Your task to perform on an android device: add a label to a message in the gmail app Image 0: 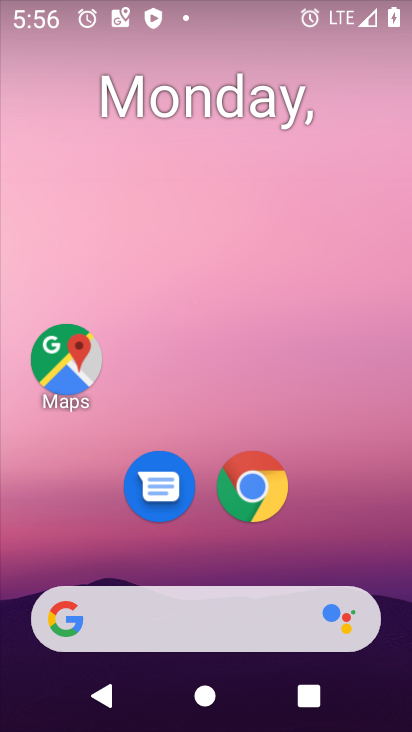
Step 0: click (278, 486)
Your task to perform on an android device: add a label to a message in the gmail app Image 1: 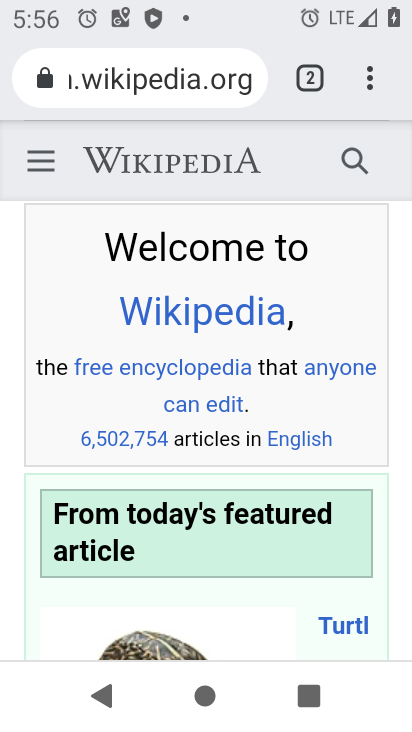
Step 1: click (307, 486)
Your task to perform on an android device: add a label to a message in the gmail app Image 2: 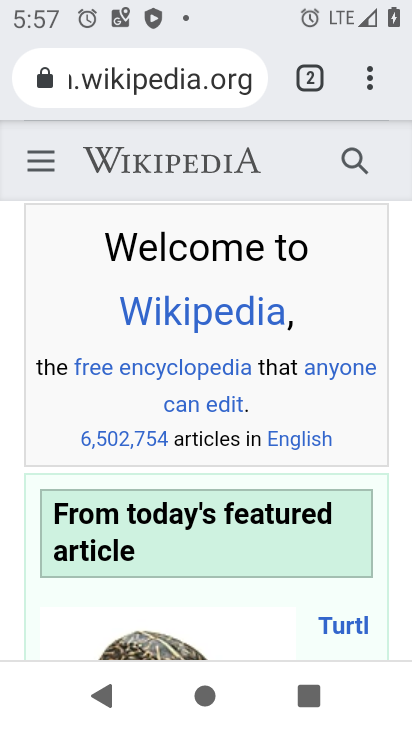
Step 2: press home button
Your task to perform on an android device: add a label to a message in the gmail app Image 3: 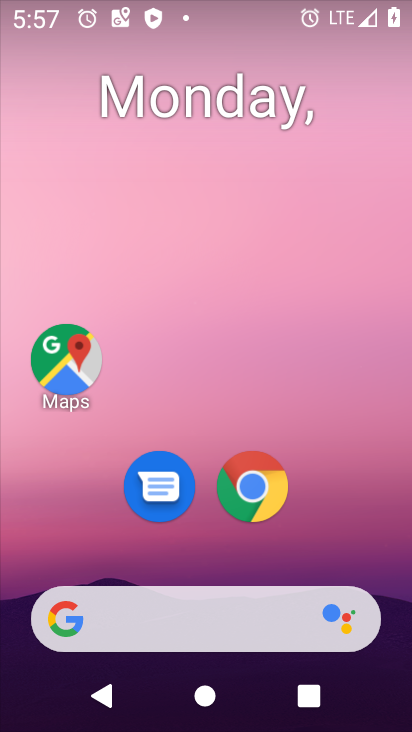
Step 3: drag from (288, 526) to (326, 155)
Your task to perform on an android device: add a label to a message in the gmail app Image 4: 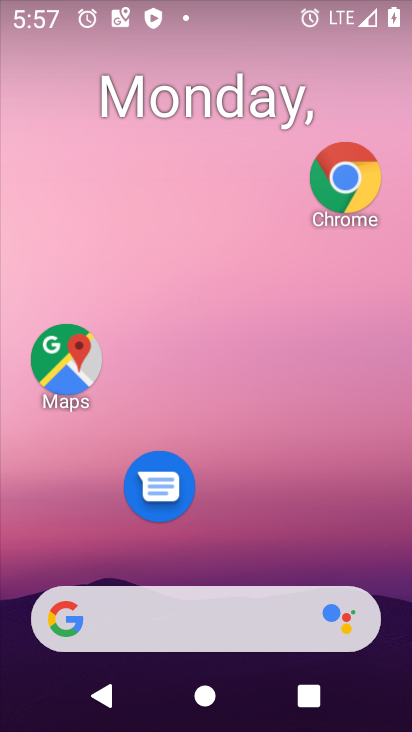
Step 4: drag from (232, 502) to (312, 88)
Your task to perform on an android device: add a label to a message in the gmail app Image 5: 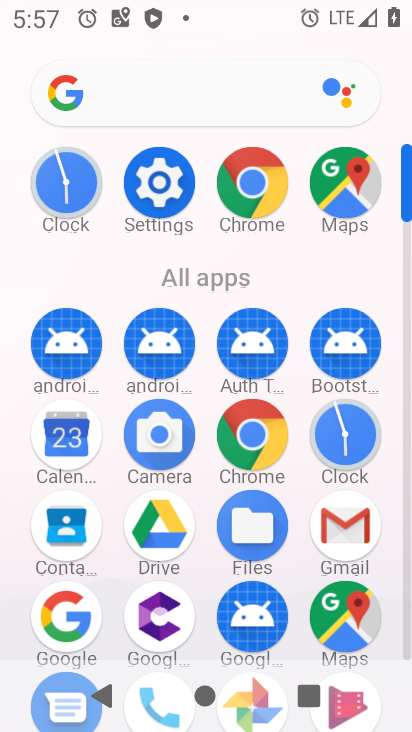
Step 5: click (344, 526)
Your task to perform on an android device: add a label to a message in the gmail app Image 6: 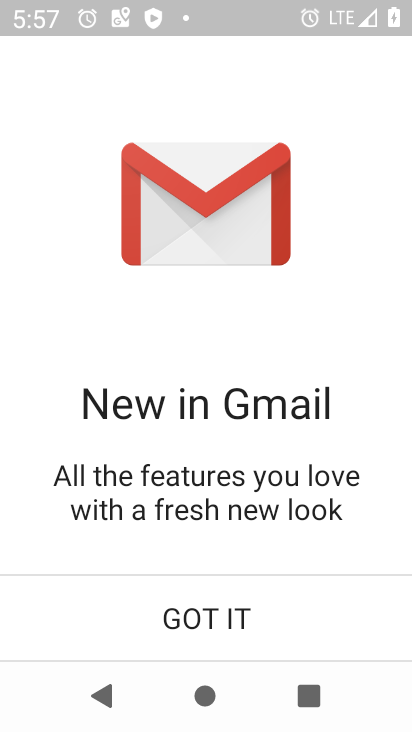
Step 6: click (201, 618)
Your task to perform on an android device: add a label to a message in the gmail app Image 7: 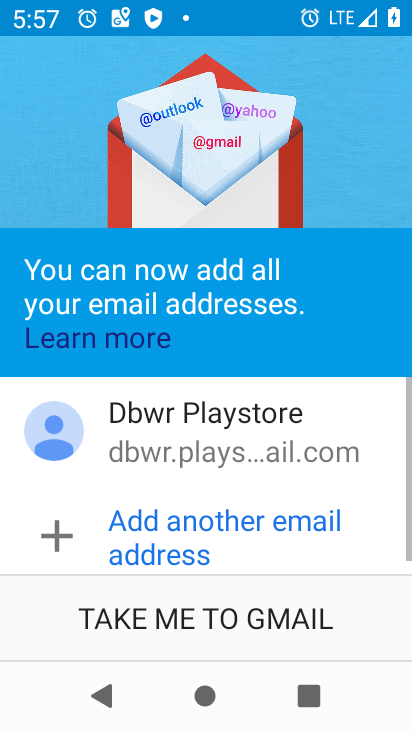
Step 7: click (201, 618)
Your task to perform on an android device: add a label to a message in the gmail app Image 8: 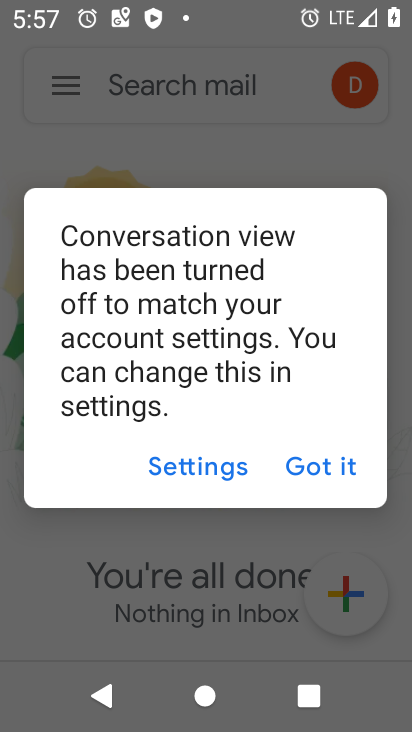
Step 8: click (294, 463)
Your task to perform on an android device: add a label to a message in the gmail app Image 9: 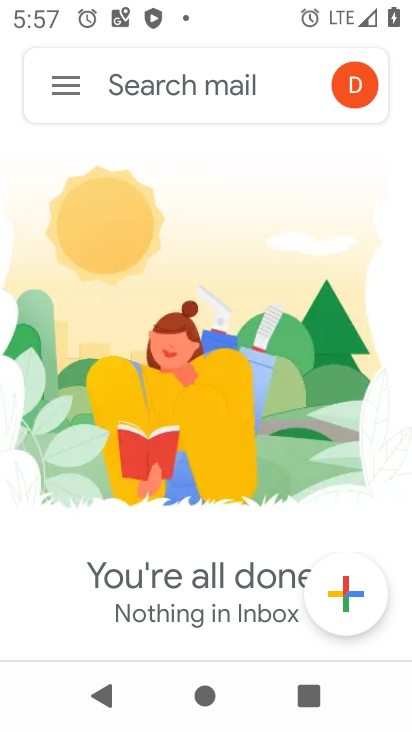
Step 9: task complete